Your task to perform on an android device: Open the stopwatch Image 0: 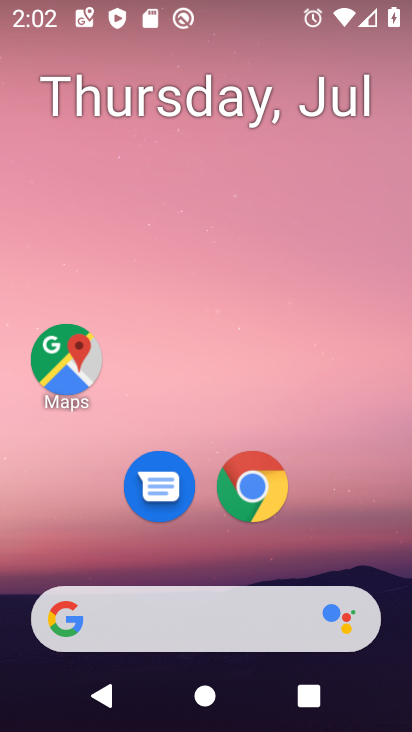
Step 0: drag from (112, 569) to (249, 49)
Your task to perform on an android device: Open the stopwatch Image 1: 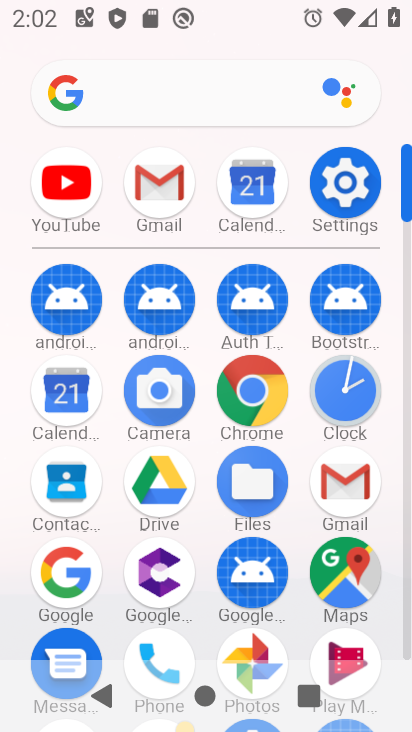
Step 1: click (329, 403)
Your task to perform on an android device: Open the stopwatch Image 2: 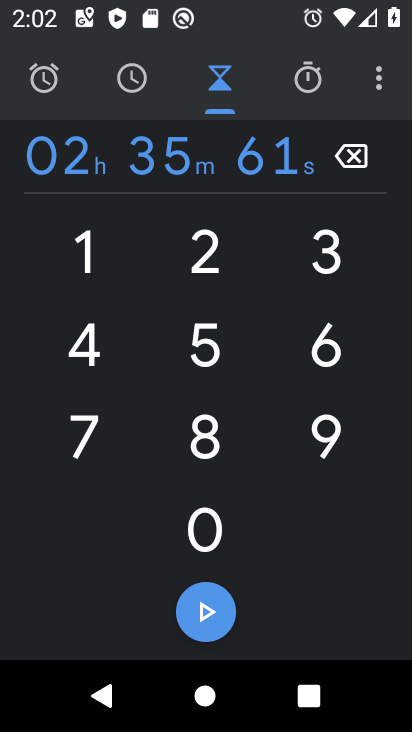
Step 2: click (299, 79)
Your task to perform on an android device: Open the stopwatch Image 3: 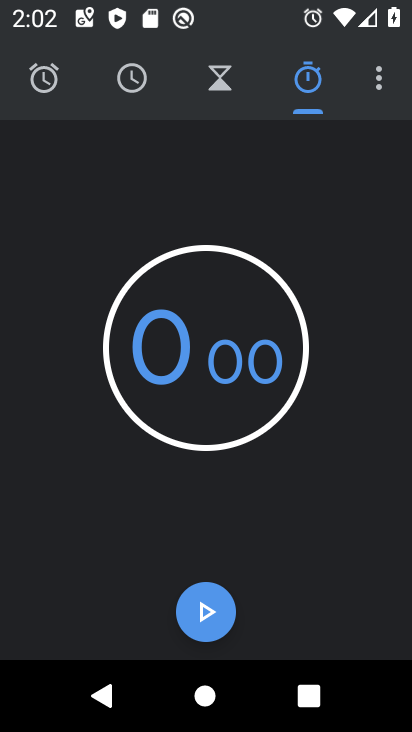
Step 3: task complete